Your task to perform on an android device: delete browsing data in the chrome app Image 0: 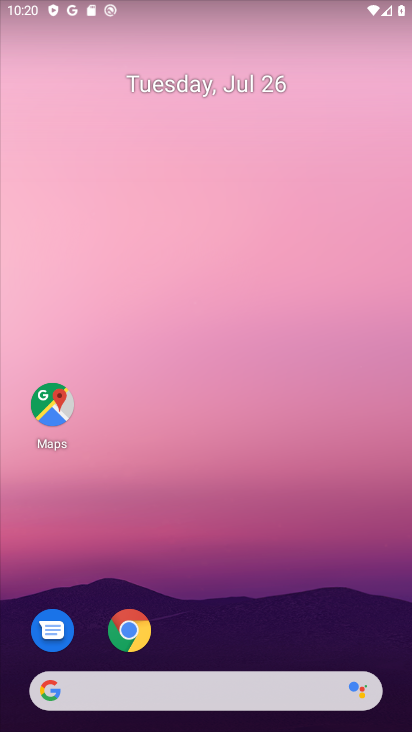
Step 0: click (132, 636)
Your task to perform on an android device: delete browsing data in the chrome app Image 1: 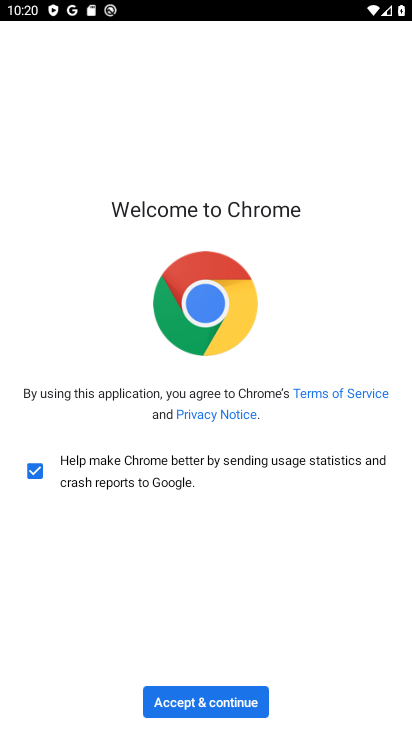
Step 1: click (195, 693)
Your task to perform on an android device: delete browsing data in the chrome app Image 2: 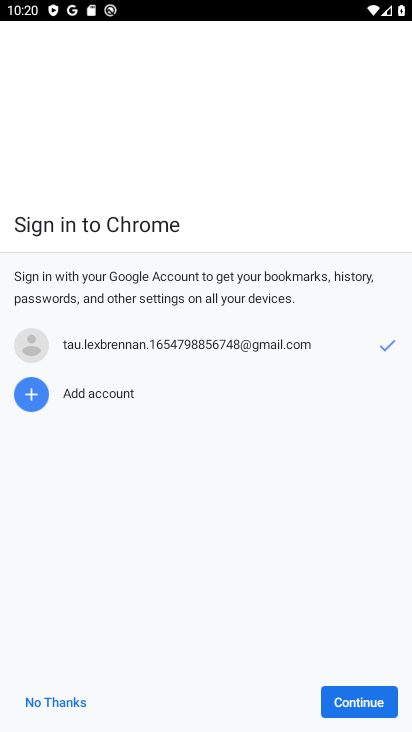
Step 2: click (346, 692)
Your task to perform on an android device: delete browsing data in the chrome app Image 3: 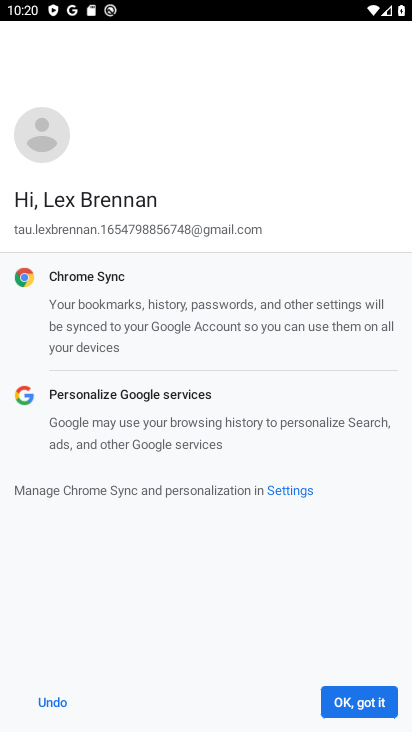
Step 3: click (357, 707)
Your task to perform on an android device: delete browsing data in the chrome app Image 4: 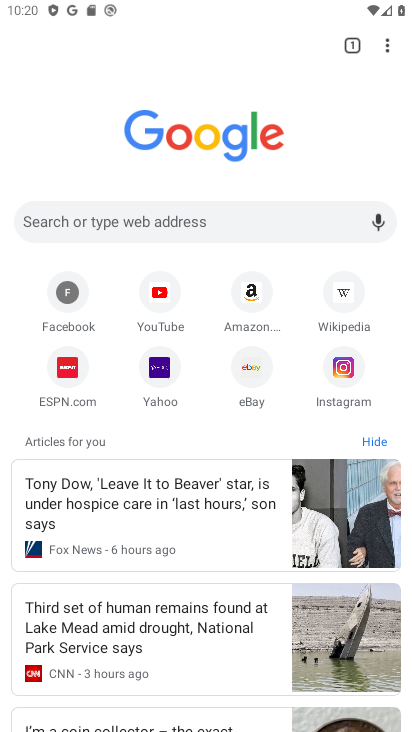
Step 4: task complete